Your task to perform on an android device: change the clock display to digital Image 0: 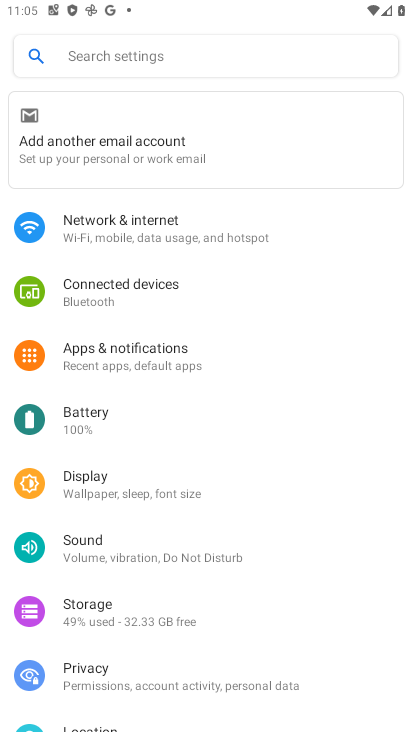
Step 0: press home button
Your task to perform on an android device: change the clock display to digital Image 1: 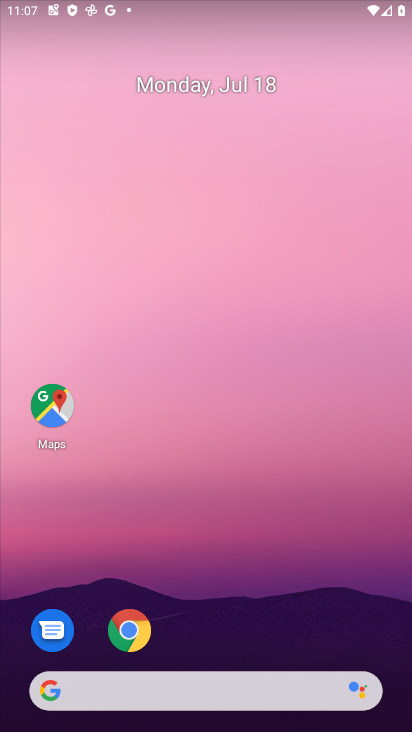
Step 1: drag from (379, 644) to (337, 30)
Your task to perform on an android device: change the clock display to digital Image 2: 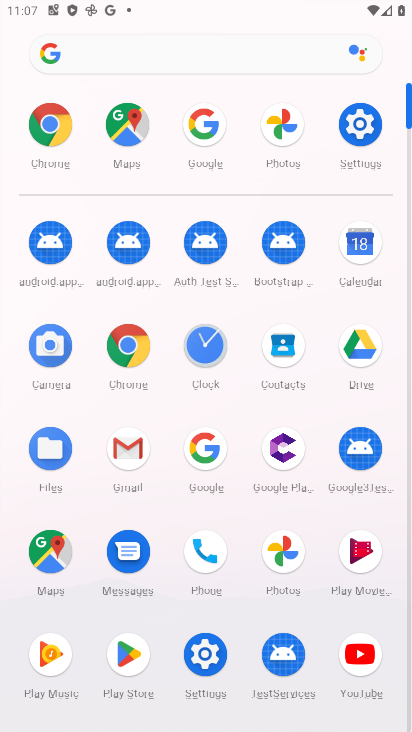
Step 2: click (212, 349)
Your task to perform on an android device: change the clock display to digital Image 3: 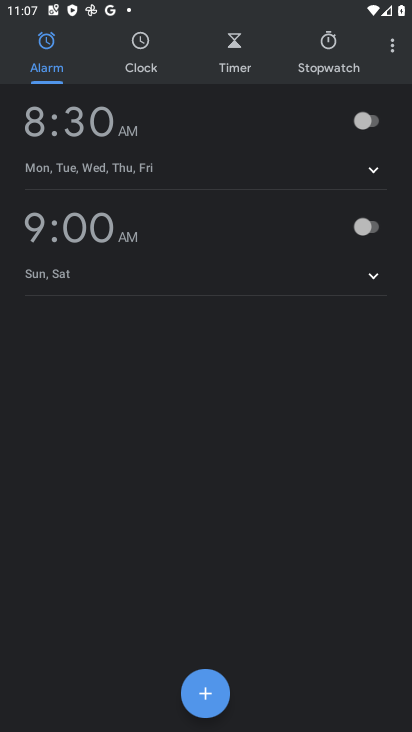
Step 3: click (386, 45)
Your task to perform on an android device: change the clock display to digital Image 4: 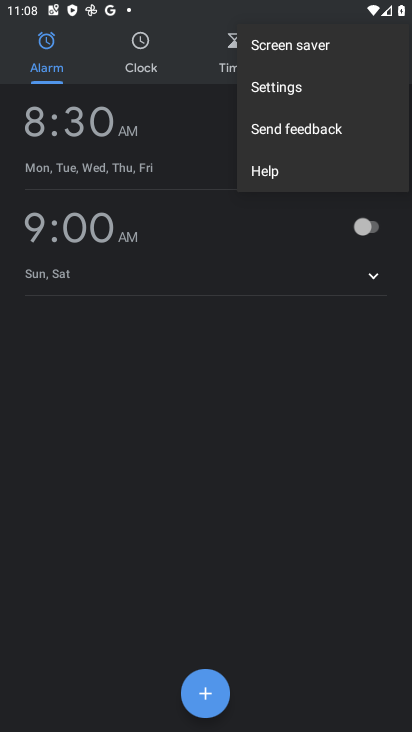
Step 4: click (293, 98)
Your task to perform on an android device: change the clock display to digital Image 5: 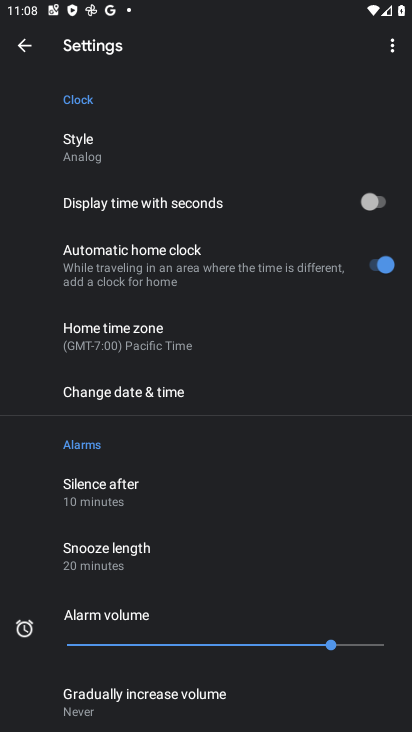
Step 5: click (57, 156)
Your task to perform on an android device: change the clock display to digital Image 6: 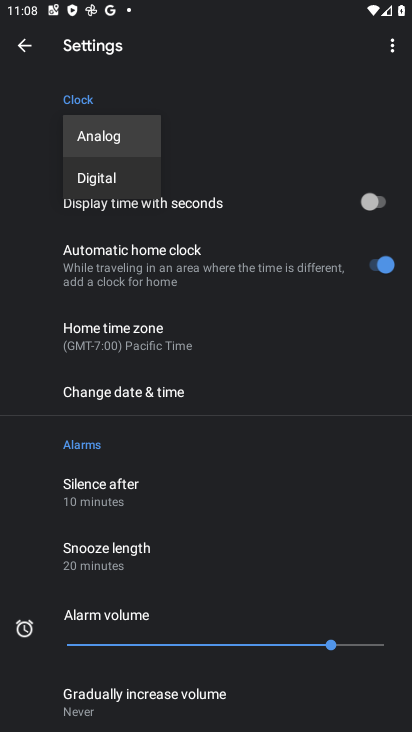
Step 6: click (113, 179)
Your task to perform on an android device: change the clock display to digital Image 7: 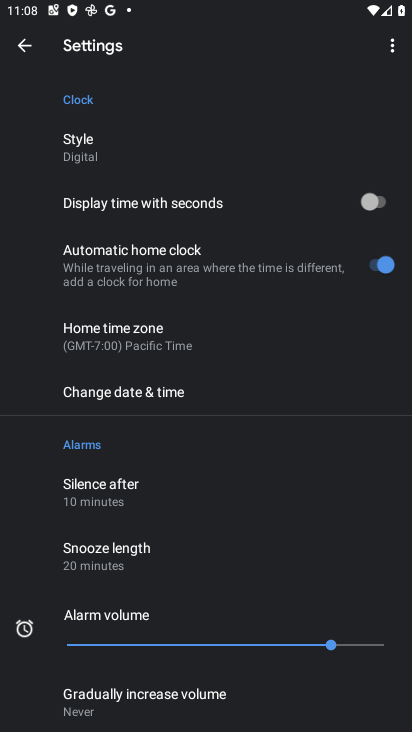
Step 7: task complete